Your task to perform on an android device: toggle wifi Image 0: 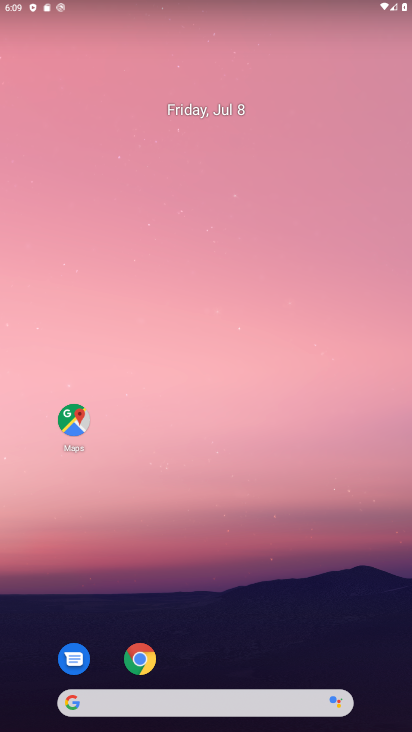
Step 0: drag from (189, 686) to (255, 13)
Your task to perform on an android device: toggle wifi Image 1: 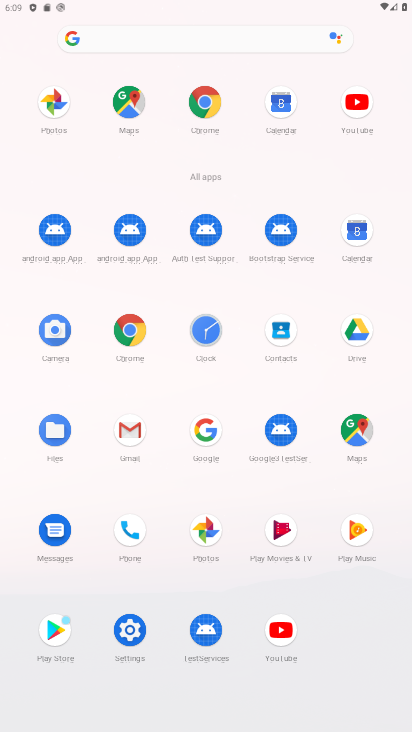
Step 1: click (132, 636)
Your task to perform on an android device: toggle wifi Image 2: 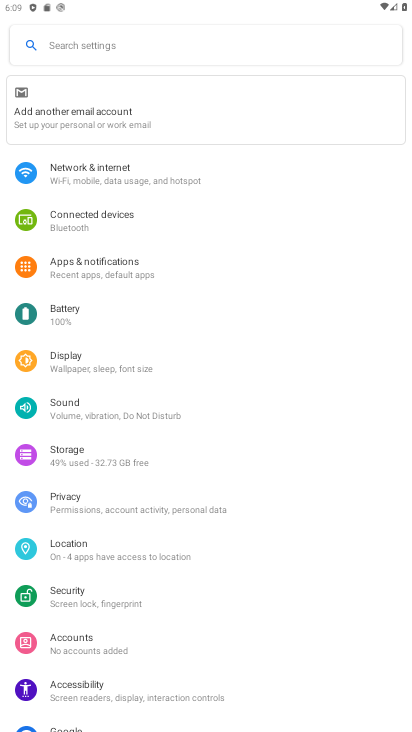
Step 2: click (129, 176)
Your task to perform on an android device: toggle wifi Image 3: 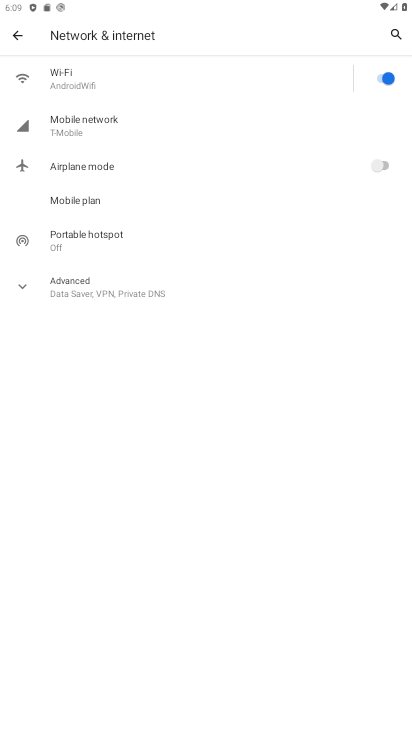
Step 3: click (163, 93)
Your task to perform on an android device: toggle wifi Image 4: 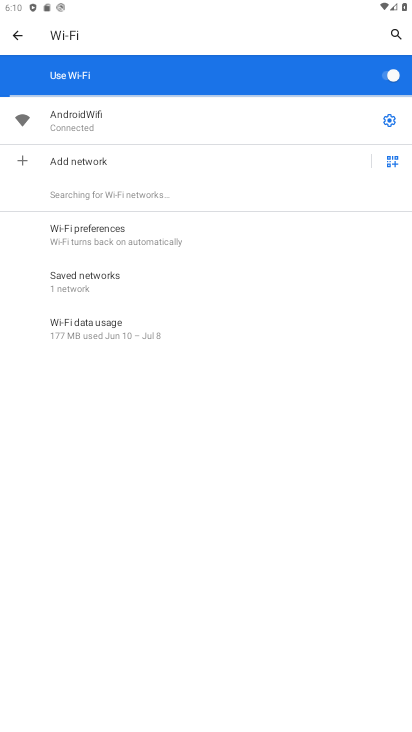
Step 4: click (391, 77)
Your task to perform on an android device: toggle wifi Image 5: 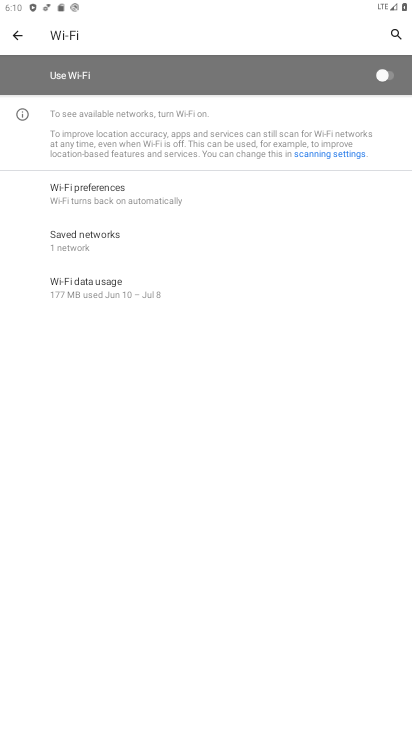
Step 5: task complete